Your task to perform on an android device: Go to privacy settings Image 0: 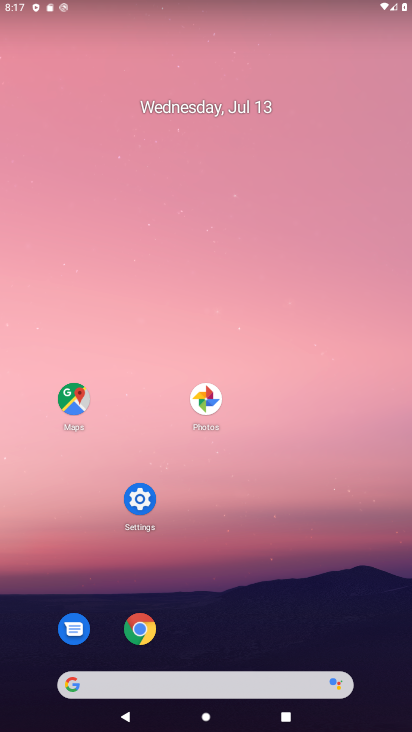
Step 0: click (145, 501)
Your task to perform on an android device: Go to privacy settings Image 1: 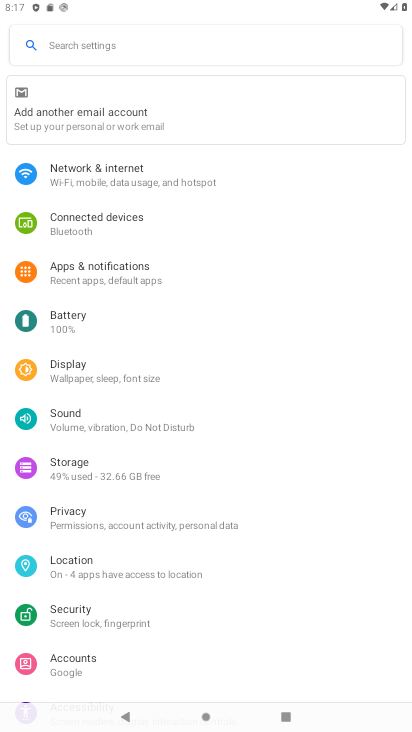
Step 1: click (81, 436)
Your task to perform on an android device: Go to privacy settings Image 2: 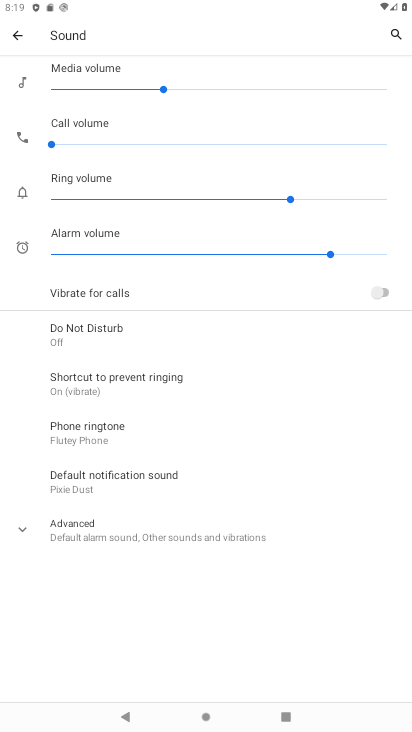
Step 2: task complete